Your task to perform on an android device: turn pop-ups on in chrome Image 0: 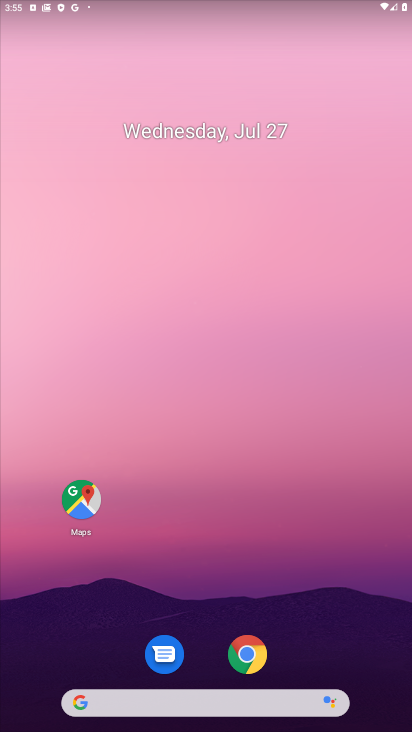
Step 0: press home button
Your task to perform on an android device: turn pop-ups on in chrome Image 1: 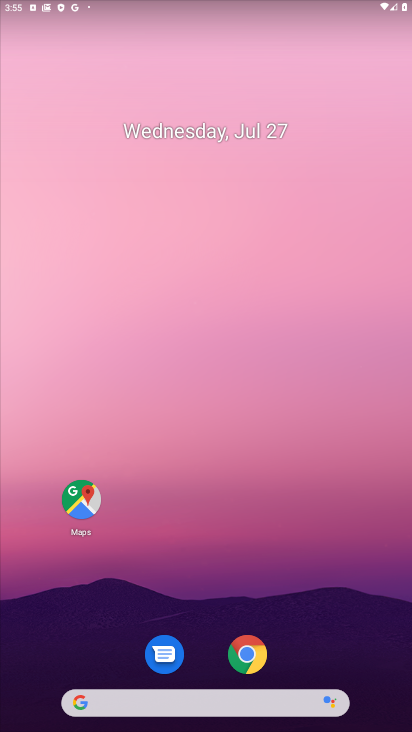
Step 1: click (250, 659)
Your task to perform on an android device: turn pop-ups on in chrome Image 2: 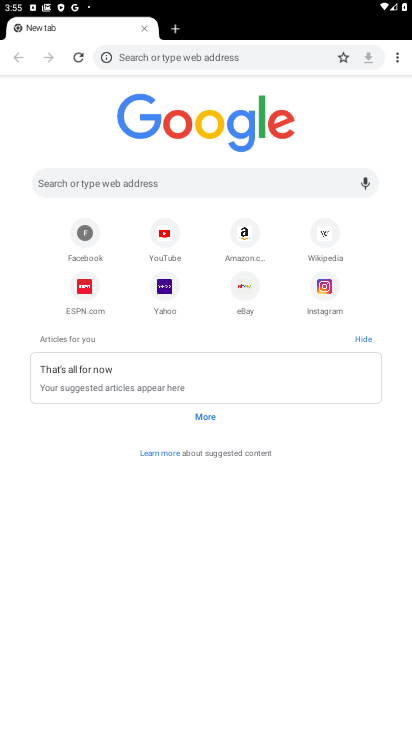
Step 2: click (396, 60)
Your task to perform on an android device: turn pop-ups on in chrome Image 3: 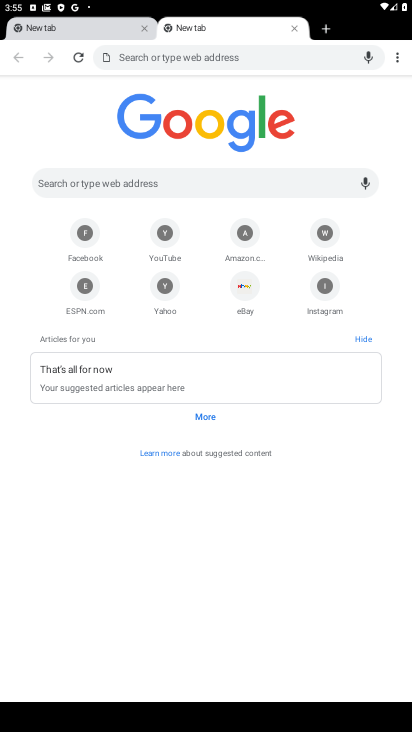
Step 3: click (397, 57)
Your task to perform on an android device: turn pop-ups on in chrome Image 4: 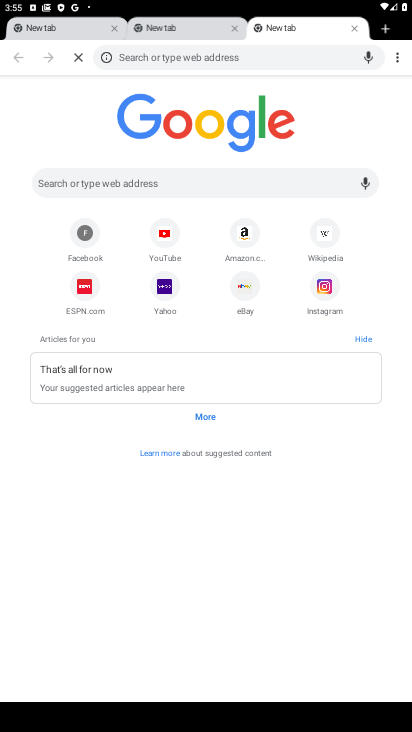
Step 4: click (397, 57)
Your task to perform on an android device: turn pop-ups on in chrome Image 5: 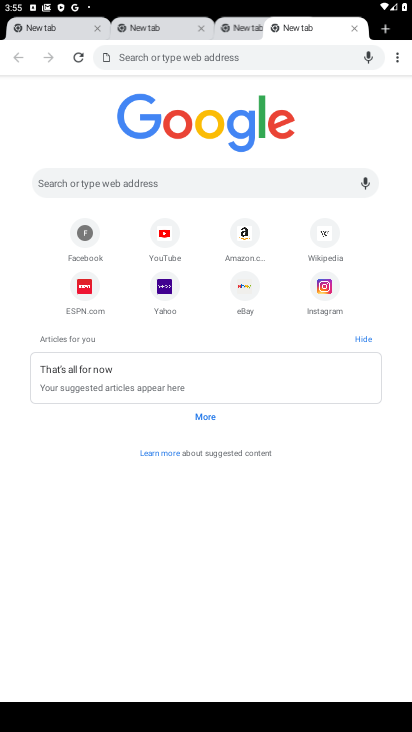
Step 5: click (397, 57)
Your task to perform on an android device: turn pop-ups on in chrome Image 6: 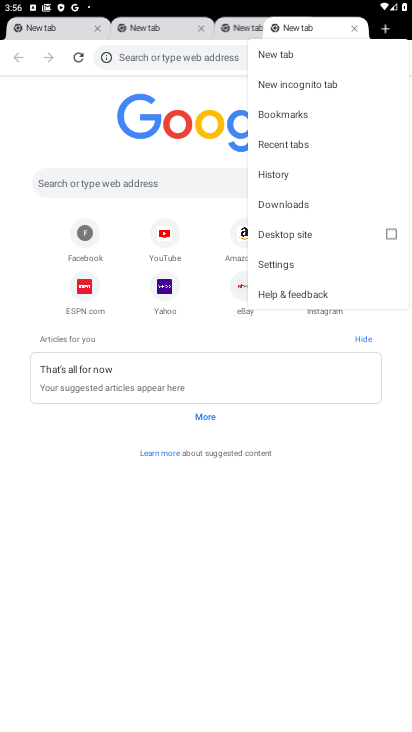
Step 6: click (282, 259)
Your task to perform on an android device: turn pop-ups on in chrome Image 7: 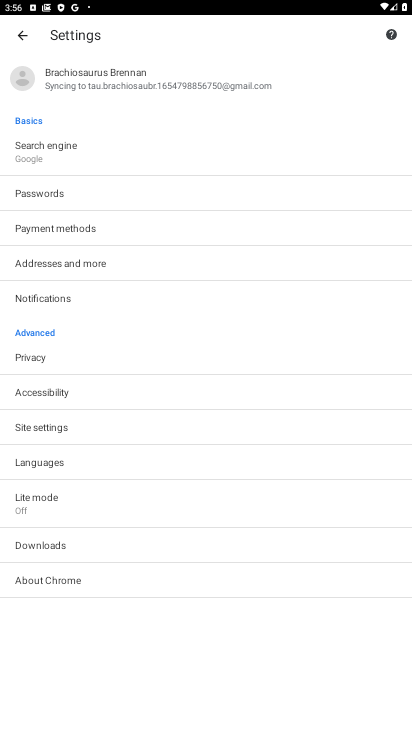
Step 7: click (31, 430)
Your task to perform on an android device: turn pop-ups on in chrome Image 8: 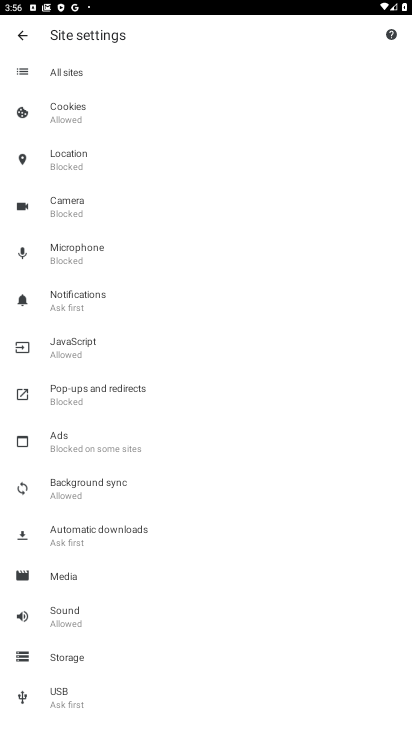
Step 8: click (85, 398)
Your task to perform on an android device: turn pop-ups on in chrome Image 9: 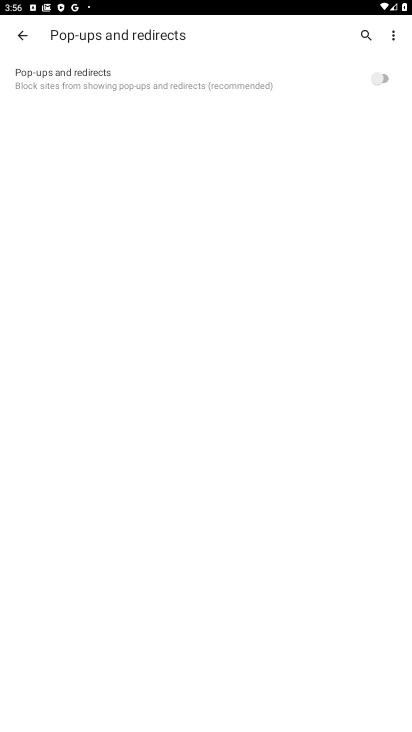
Step 9: click (381, 74)
Your task to perform on an android device: turn pop-ups on in chrome Image 10: 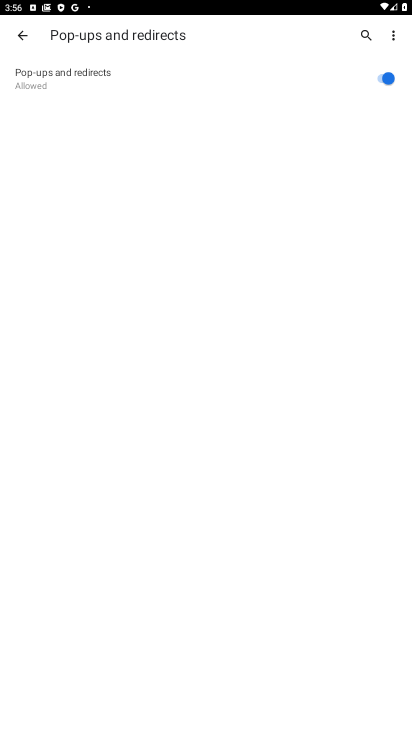
Step 10: task complete